Your task to perform on an android device: Open CNN.com Image 0: 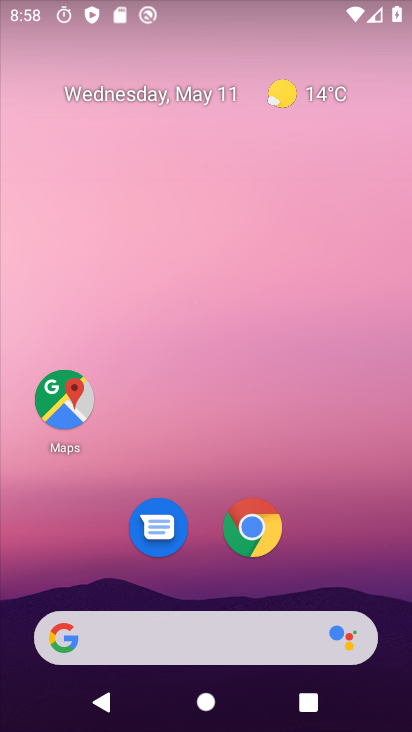
Step 0: drag from (219, 691) to (271, 232)
Your task to perform on an android device: Open CNN.com Image 1: 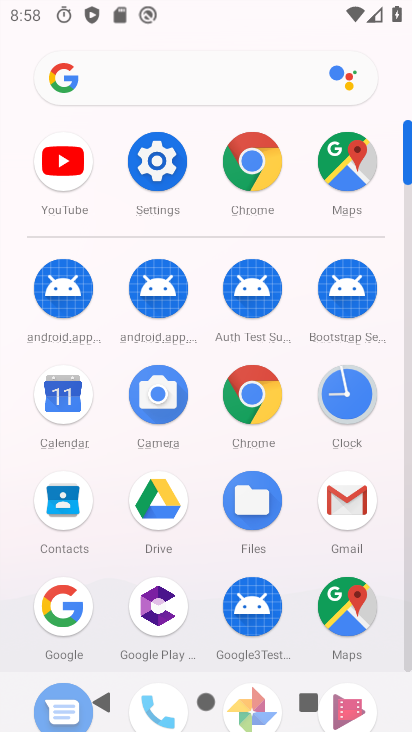
Step 1: click (265, 185)
Your task to perform on an android device: Open CNN.com Image 2: 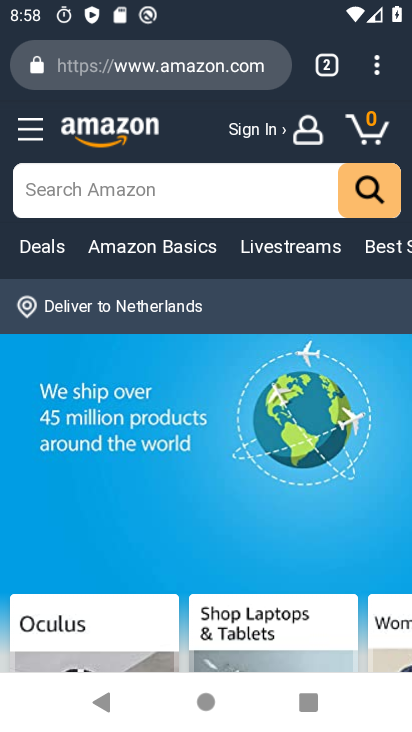
Step 2: click (199, 73)
Your task to perform on an android device: Open CNN.com Image 3: 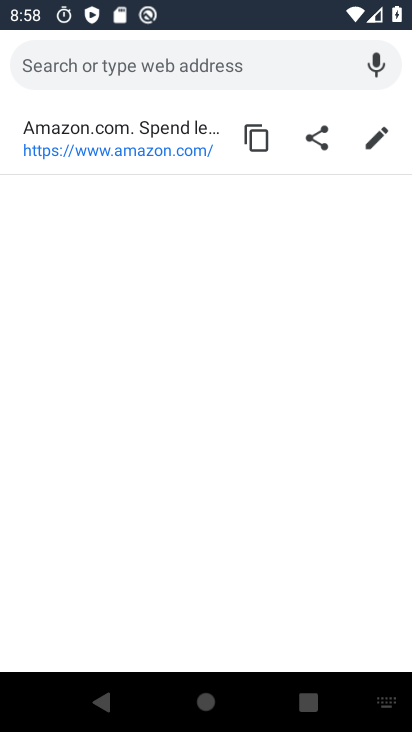
Step 3: type "cnn.com"
Your task to perform on an android device: Open CNN.com Image 4: 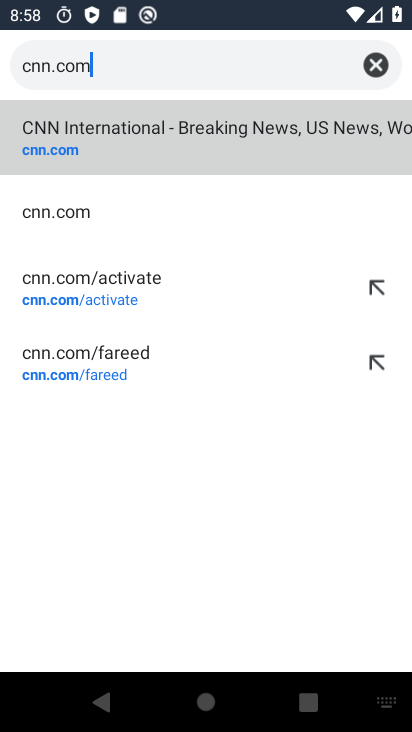
Step 4: click (260, 132)
Your task to perform on an android device: Open CNN.com Image 5: 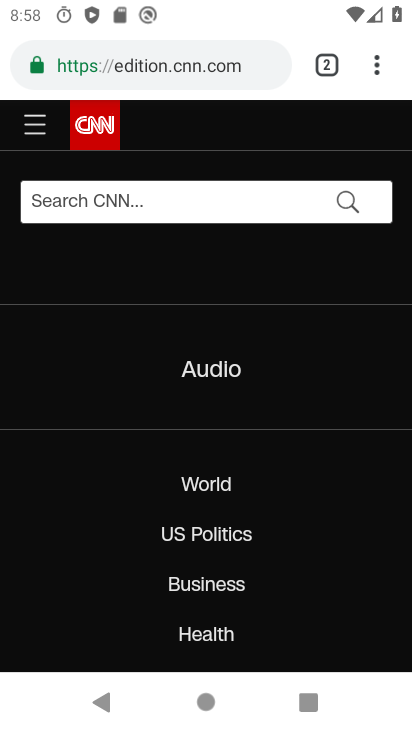
Step 5: task complete